Your task to perform on an android device: Go to display settings Image 0: 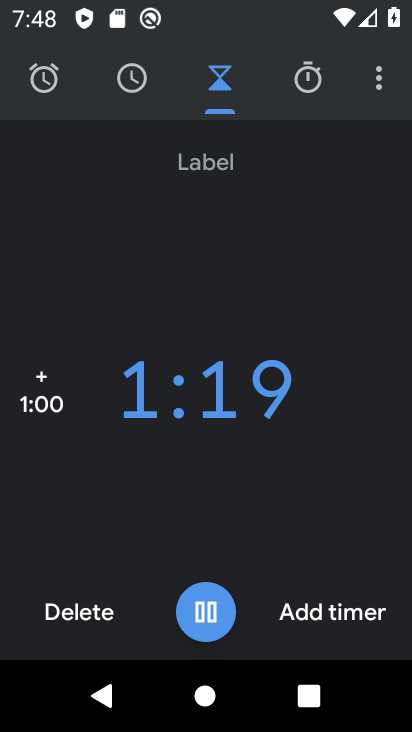
Step 0: press home button
Your task to perform on an android device: Go to display settings Image 1: 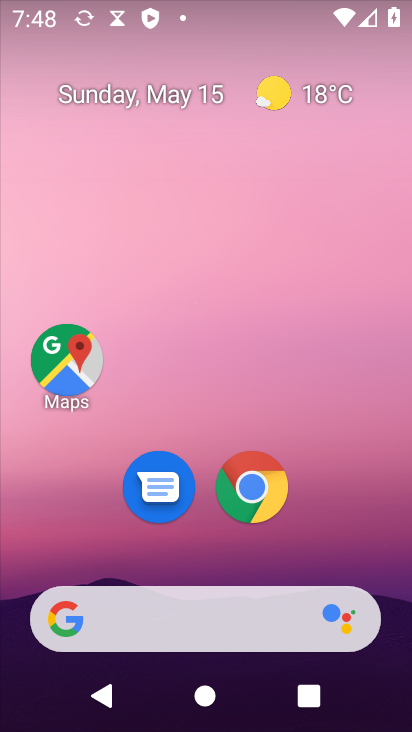
Step 1: drag from (195, 434) to (278, 0)
Your task to perform on an android device: Go to display settings Image 2: 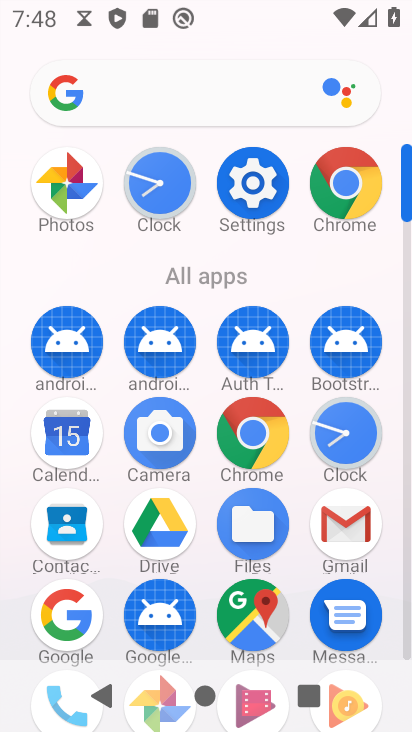
Step 2: click (267, 201)
Your task to perform on an android device: Go to display settings Image 3: 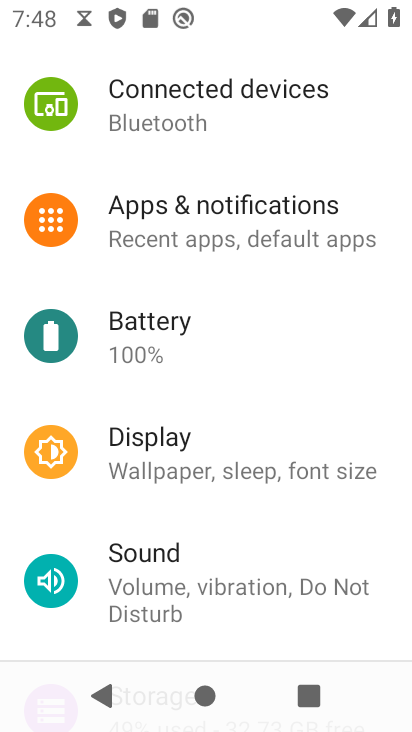
Step 3: click (170, 458)
Your task to perform on an android device: Go to display settings Image 4: 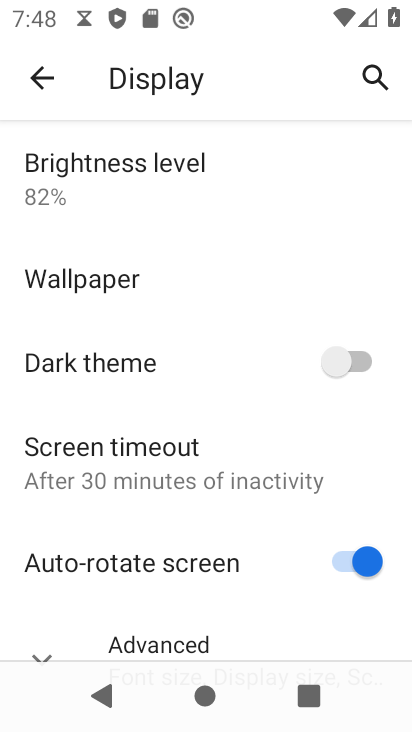
Step 4: task complete